Your task to perform on an android device: Open Youtube and go to "Your channel" Image 0: 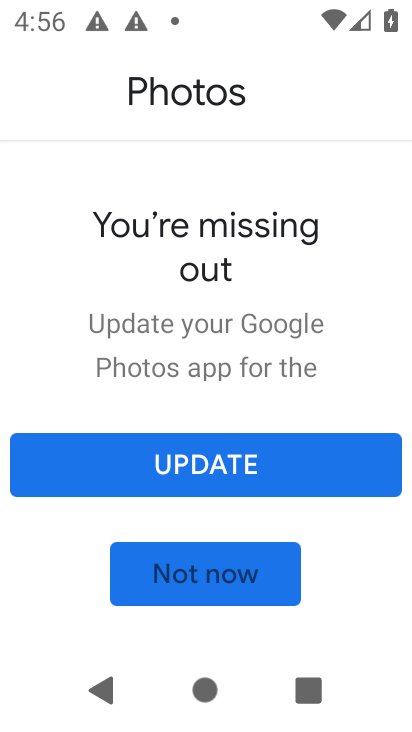
Step 0: press home button
Your task to perform on an android device: Open Youtube and go to "Your channel" Image 1: 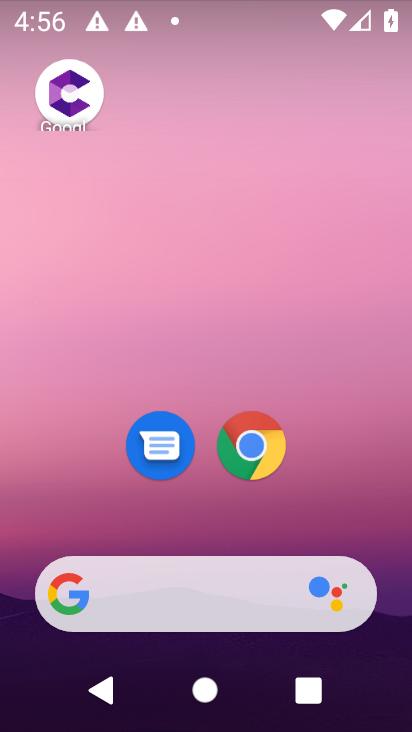
Step 1: drag from (200, 539) to (273, 41)
Your task to perform on an android device: Open Youtube and go to "Your channel" Image 2: 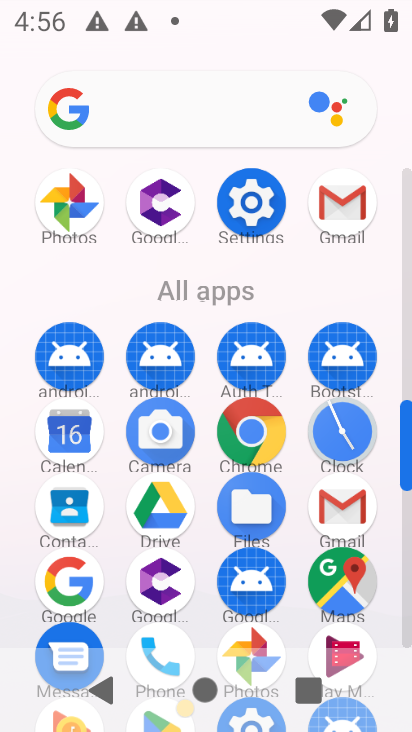
Step 2: drag from (289, 508) to (311, 169)
Your task to perform on an android device: Open Youtube and go to "Your channel" Image 3: 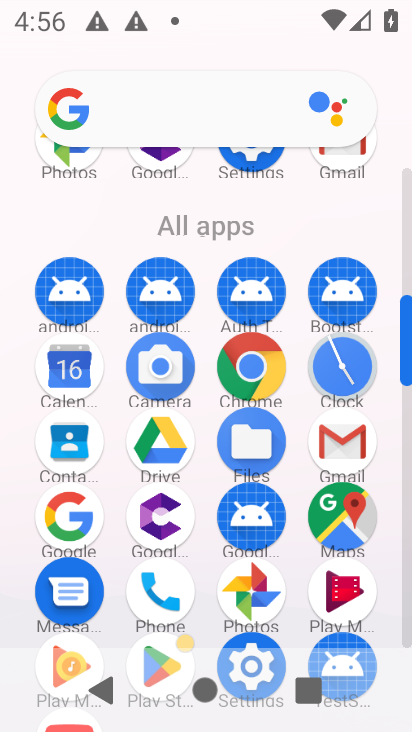
Step 3: drag from (301, 187) to (308, 144)
Your task to perform on an android device: Open Youtube and go to "Your channel" Image 4: 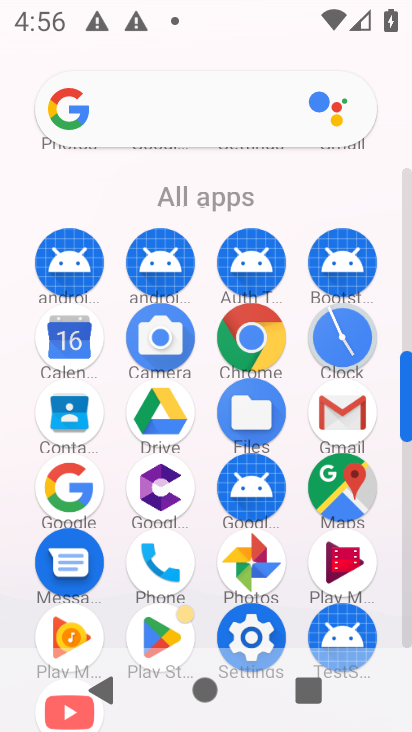
Step 4: drag from (209, 545) to (209, 191)
Your task to perform on an android device: Open Youtube and go to "Your channel" Image 5: 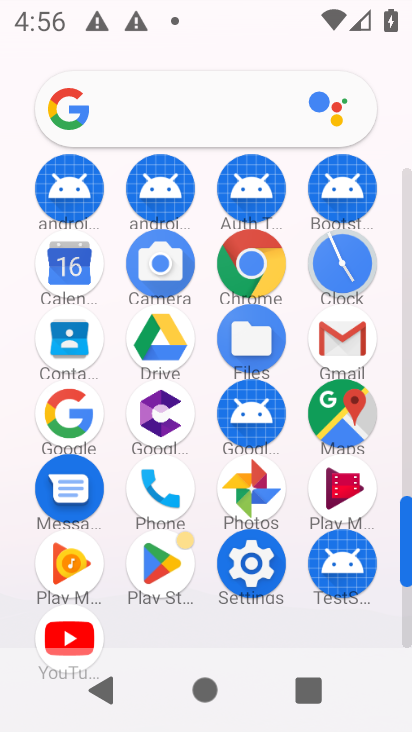
Step 5: click (56, 629)
Your task to perform on an android device: Open Youtube and go to "Your channel" Image 6: 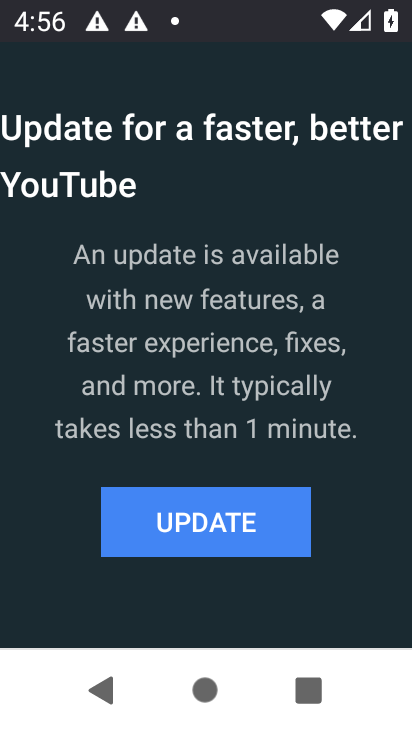
Step 6: click (197, 512)
Your task to perform on an android device: Open Youtube and go to "Your channel" Image 7: 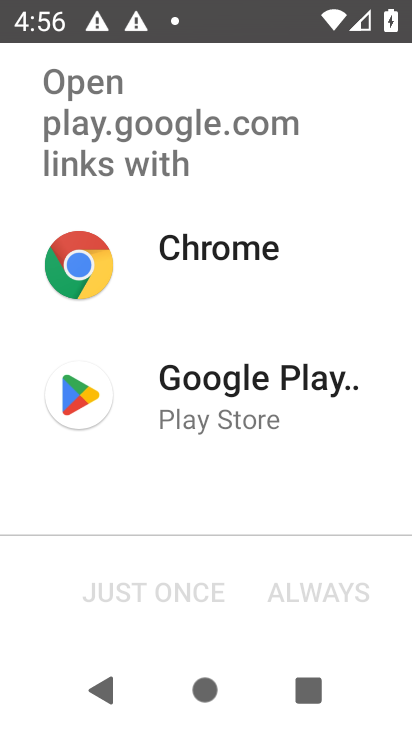
Step 7: drag from (267, 444) to (245, 207)
Your task to perform on an android device: Open Youtube and go to "Your channel" Image 8: 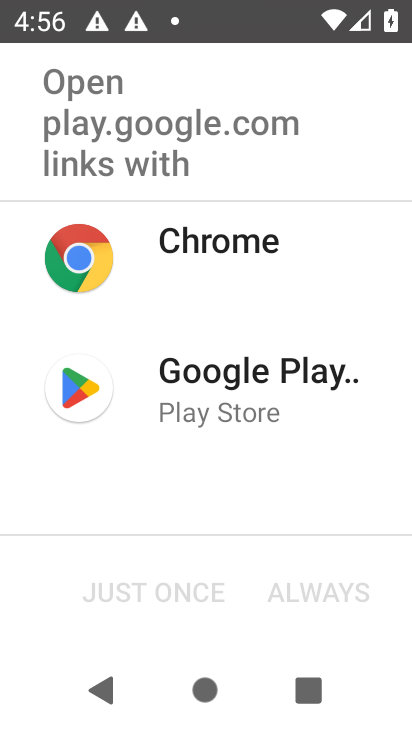
Step 8: drag from (236, 525) to (254, 189)
Your task to perform on an android device: Open Youtube and go to "Your channel" Image 9: 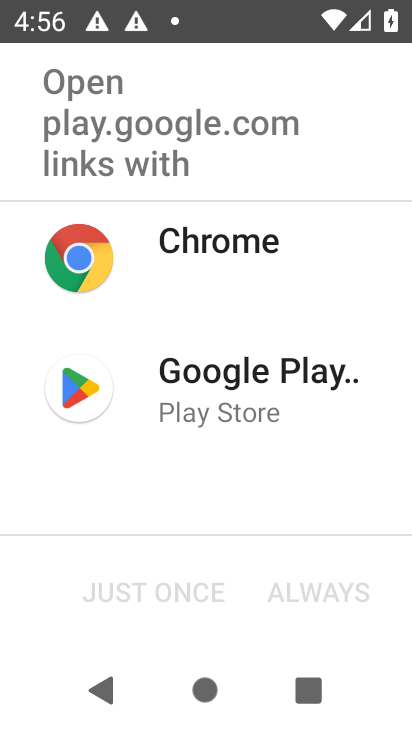
Step 9: click (260, 402)
Your task to perform on an android device: Open Youtube and go to "Your channel" Image 10: 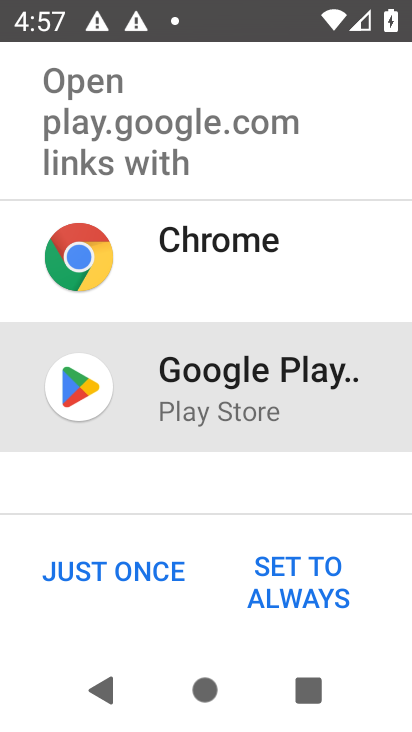
Step 10: click (277, 575)
Your task to perform on an android device: Open Youtube and go to "Your channel" Image 11: 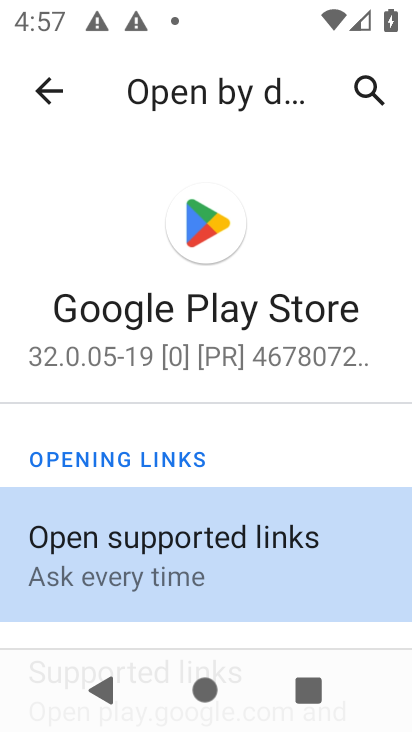
Step 11: click (46, 90)
Your task to perform on an android device: Open Youtube and go to "Your channel" Image 12: 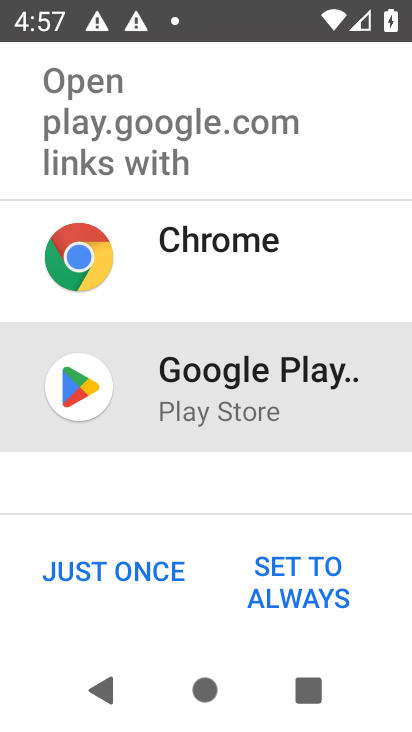
Step 12: click (306, 595)
Your task to perform on an android device: Open Youtube and go to "Your channel" Image 13: 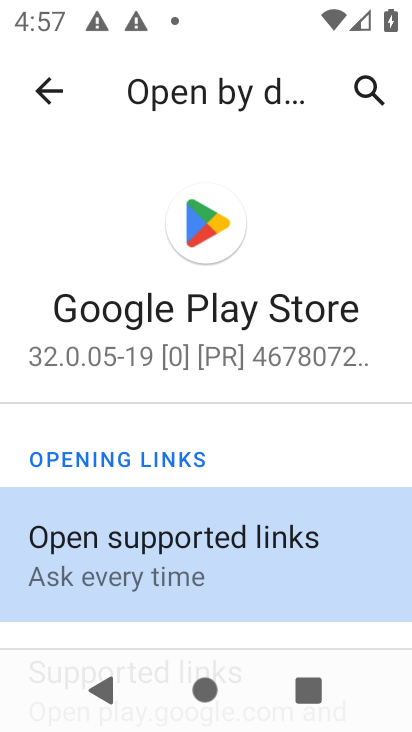
Step 13: click (139, 543)
Your task to perform on an android device: Open Youtube and go to "Your channel" Image 14: 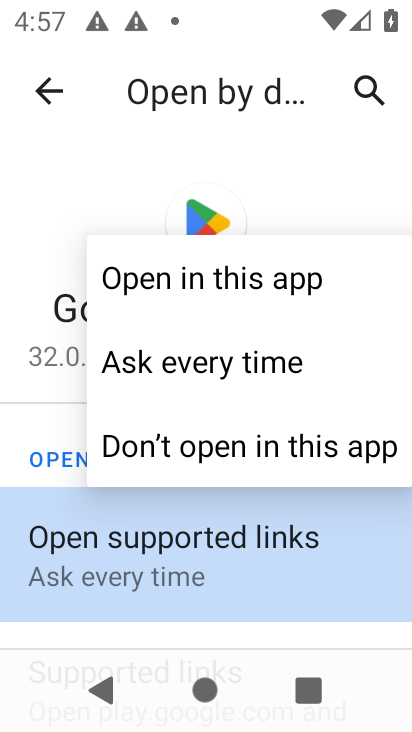
Step 14: click (141, 292)
Your task to perform on an android device: Open Youtube and go to "Your channel" Image 15: 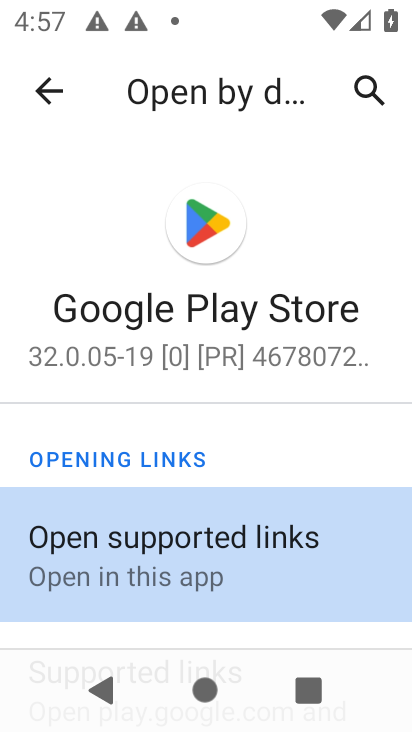
Step 15: click (49, 83)
Your task to perform on an android device: Open Youtube and go to "Your channel" Image 16: 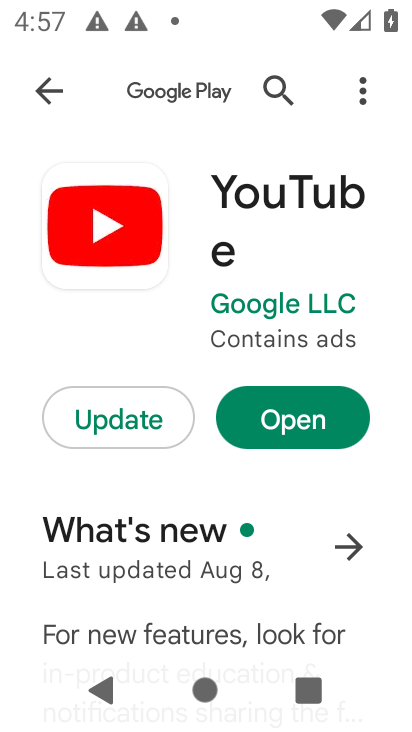
Step 16: click (105, 425)
Your task to perform on an android device: Open Youtube and go to "Your channel" Image 17: 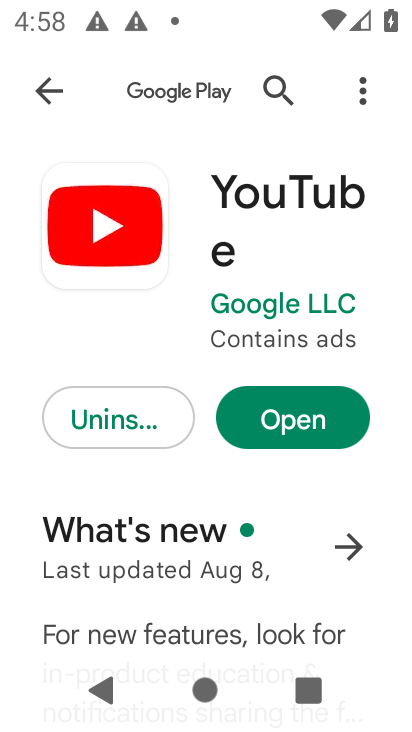
Step 17: click (285, 422)
Your task to perform on an android device: Open Youtube and go to "Your channel" Image 18: 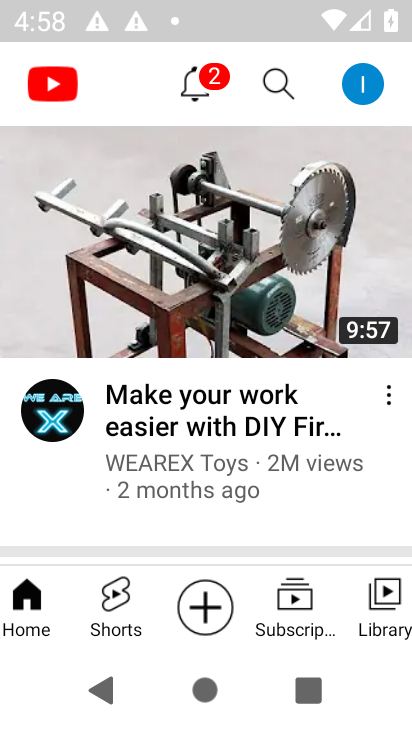
Step 18: click (362, 79)
Your task to perform on an android device: Open Youtube and go to "Your channel" Image 19: 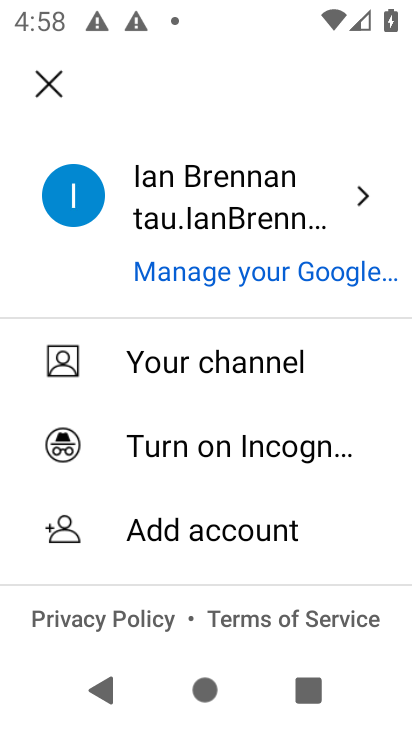
Step 19: click (237, 366)
Your task to perform on an android device: Open Youtube and go to "Your channel" Image 20: 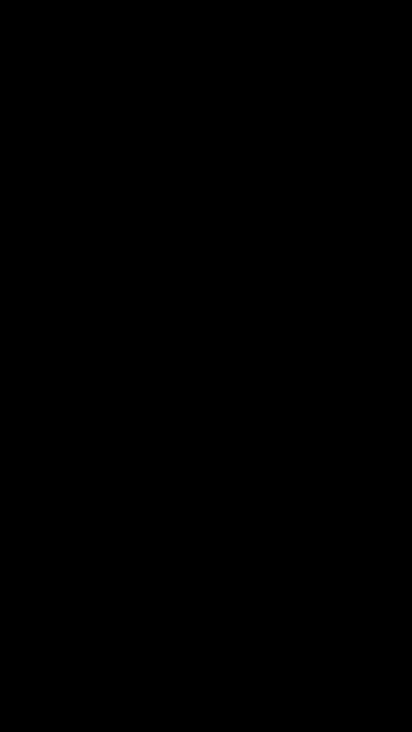
Step 20: task complete